Your task to perform on an android device: check google app version Image 0: 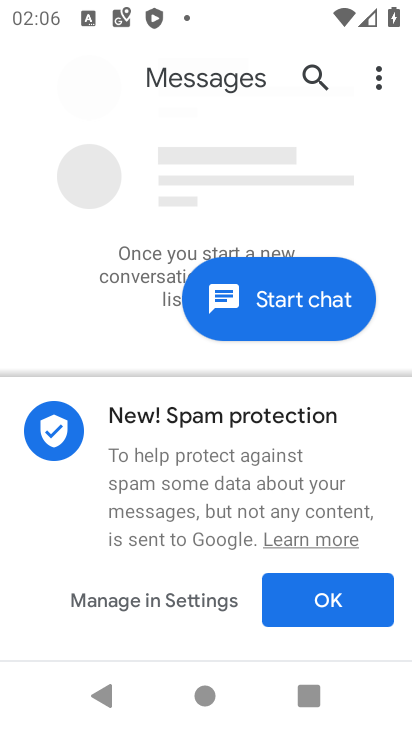
Step 0: press home button
Your task to perform on an android device: check google app version Image 1: 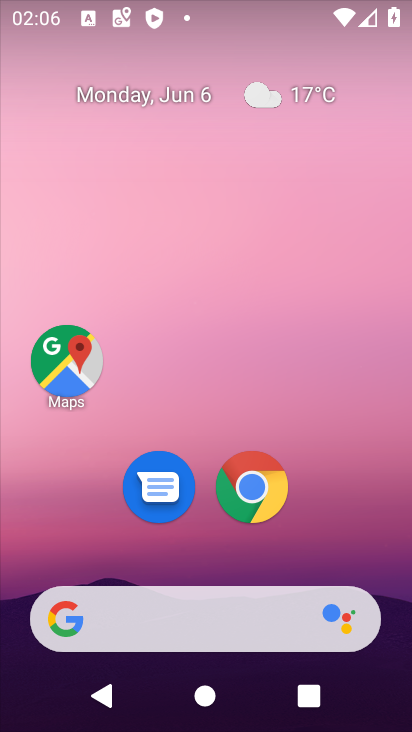
Step 1: click (255, 486)
Your task to perform on an android device: check google app version Image 2: 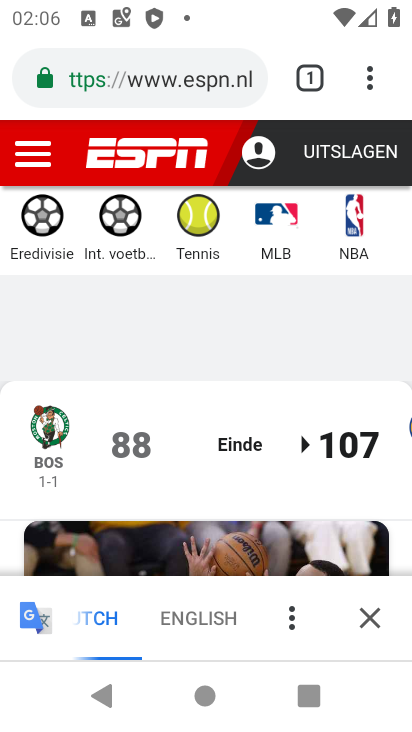
Step 2: click (369, 88)
Your task to perform on an android device: check google app version Image 3: 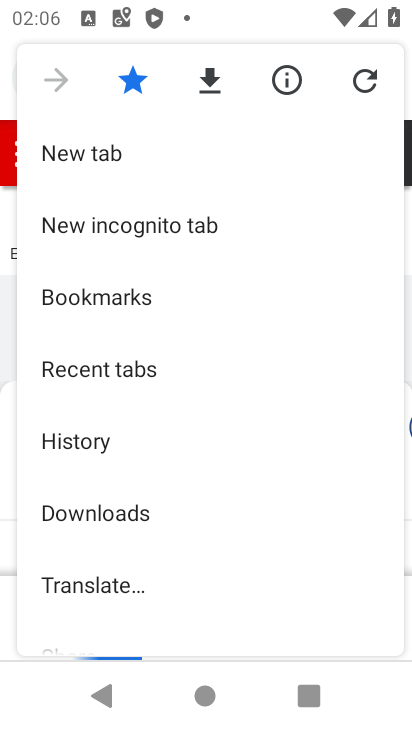
Step 3: drag from (238, 592) to (271, 164)
Your task to perform on an android device: check google app version Image 4: 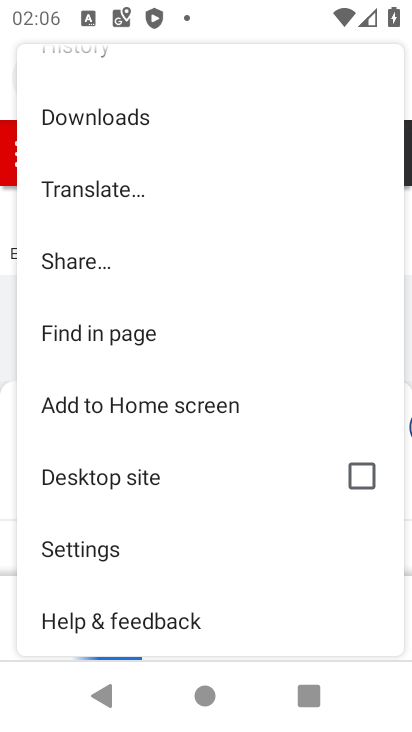
Step 4: click (94, 554)
Your task to perform on an android device: check google app version Image 5: 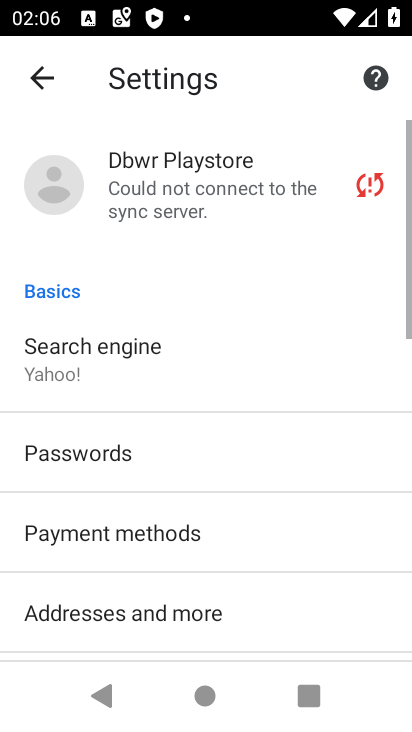
Step 5: drag from (265, 588) to (230, 65)
Your task to perform on an android device: check google app version Image 6: 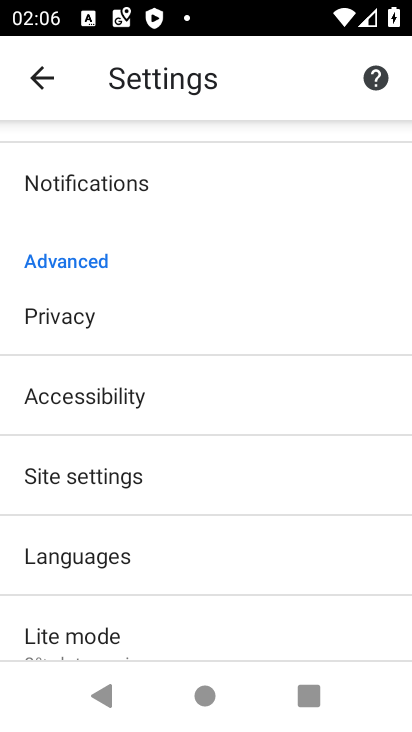
Step 6: drag from (231, 605) to (236, 212)
Your task to perform on an android device: check google app version Image 7: 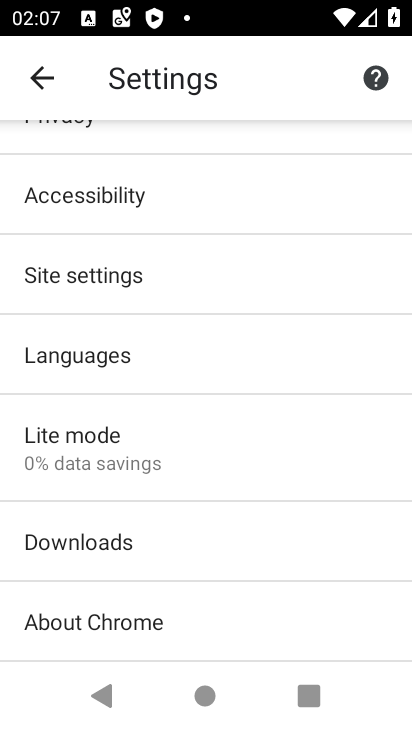
Step 7: click (97, 629)
Your task to perform on an android device: check google app version Image 8: 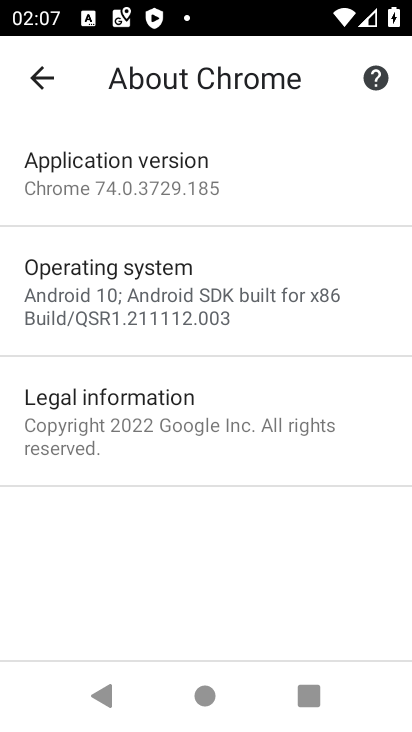
Step 8: click (132, 164)
Your task to perform on an android device: check google app version Image 9: 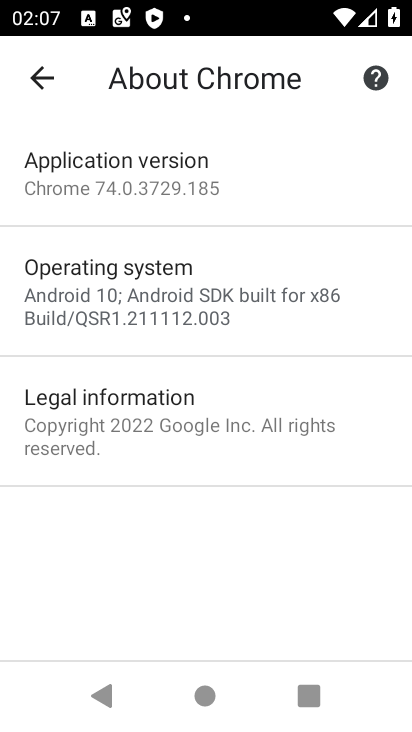
Step 9: task complete